Your task to perform on an android device: open app "Indeed Job Search" (install if not already installed) and enter user name: "quixotic@inbox.com" and password: "microphones" Image 0: 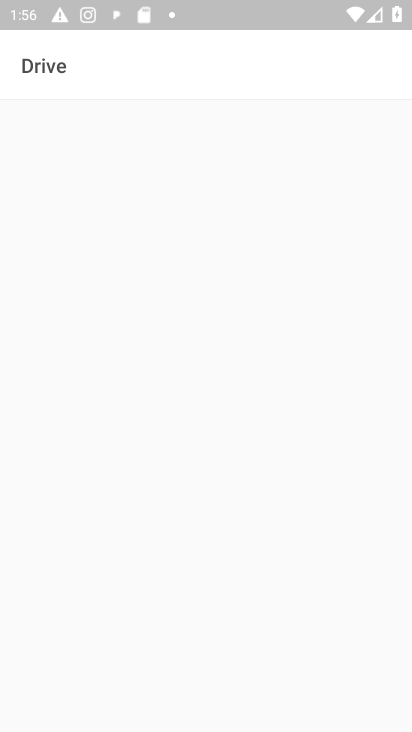
Step 0: press home button
Your task to perform on an android device: open app "Indeed Job Search" (install if not already installed) and enter user name: "quixotic@inbox.com" and password: "microphones" Image 1: 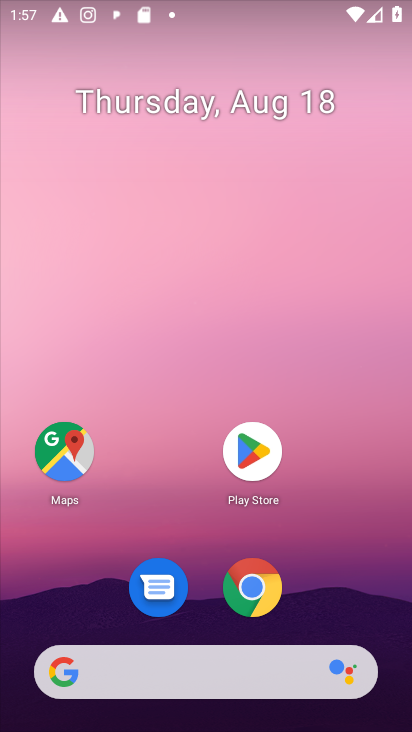
Step 1: click (247, 451)
Your task to perform on an android device: open app "Indeed Job Search" (install if not already installed) and enter user name: "quixotic@inbox.com" and password: "microphones" Image 2: 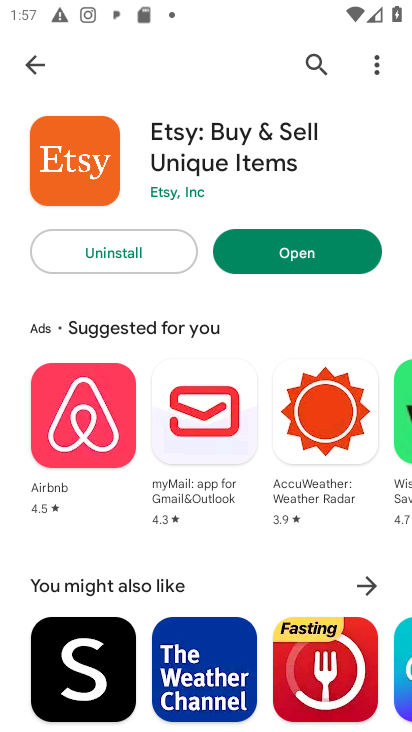
Step 2: click (318, 63)
Your task to perform on an android device: open app "Indeed Job Search" (install if not already installed) and enter user name: "quixotic@inbox.com" and password: "microphones" Image 3: 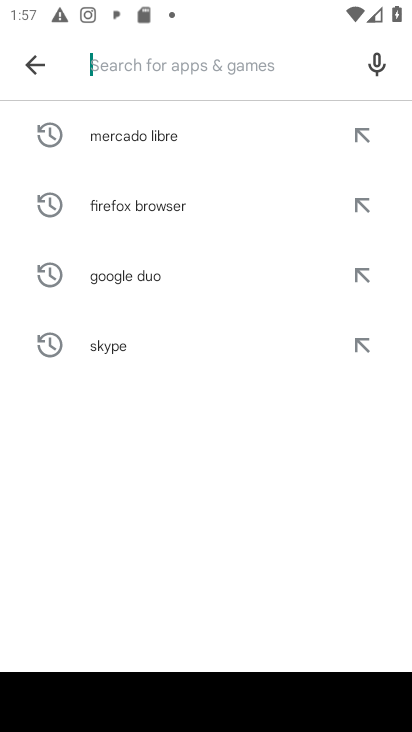
Step 3: type "Indeed Job Search"
Your task to perform on an android device: open app "Indeed Job Search" (install if not already installed) and enter user name: "quixotic@inbox.com" and password: "microphones" Image 4: 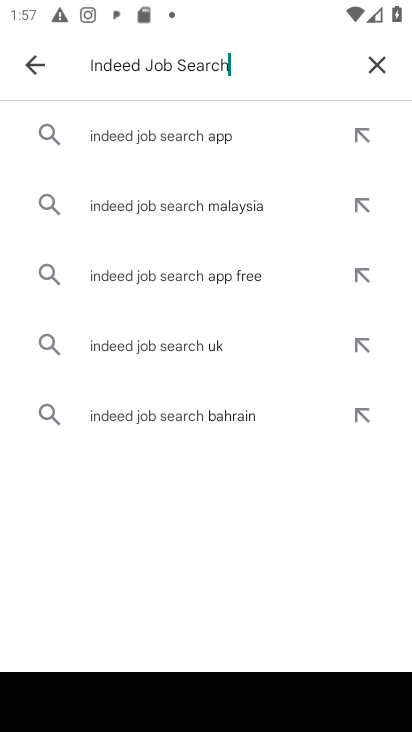
Step 4: click (210, 141)
Your task to perform on an android device: open app "Indeed Job Search" (install if not already installed) and enter user name: "quixotic@inbox.com" and password: "microphones" Image 5: 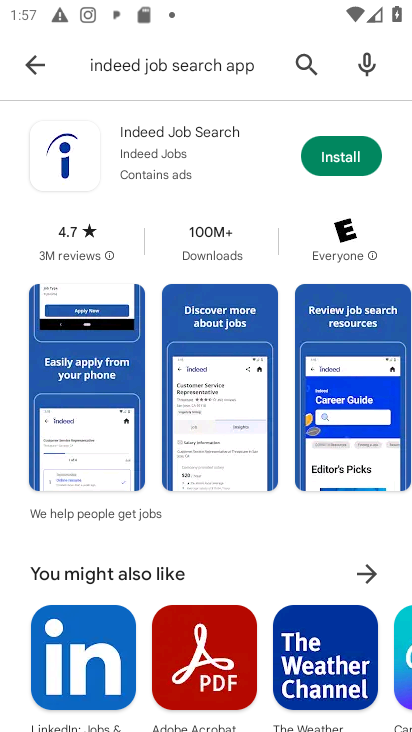
Step 5: click (344, 153)
Your task to perform on an android device: open app "Indeed Job Search" (install if not already installed) and enter user name: "quixotic@inbox.com" and password: "microphones" Image 6: 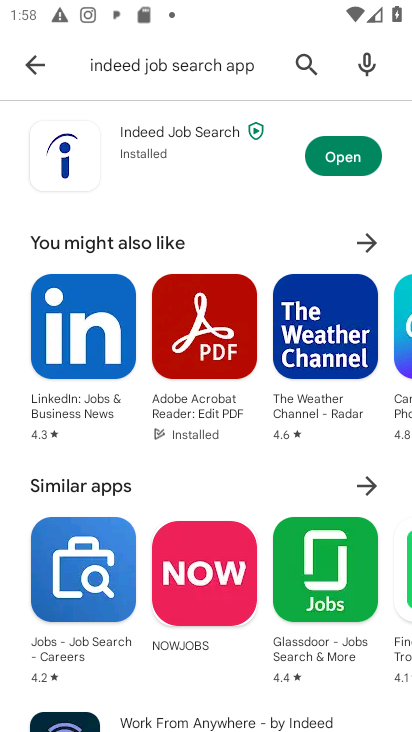
Step 6: click (365, 152)
Your task to perform on an android device: open app "Indeed Job Search" (install if not already installed) and enter user name: "quixotic@inbox.com" and password: "microphones" Image 7: 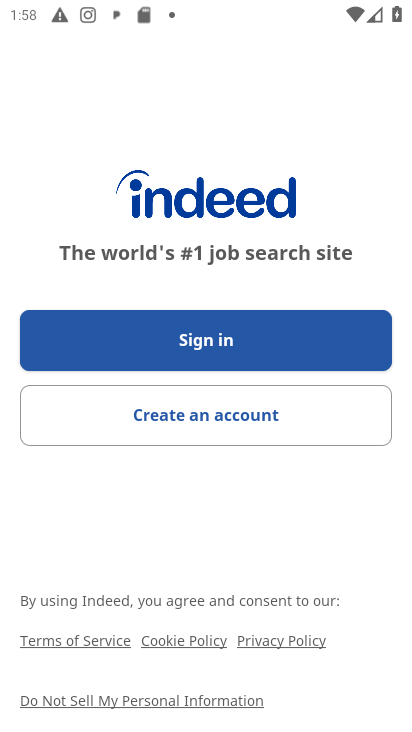
Step 7: click (204, 343)
Your task to perform on an android device: open app "Indeed Job Search" (install if not already installed) and enter user name: "quixotic@inbox.com" and password: "microphones" Image 8: 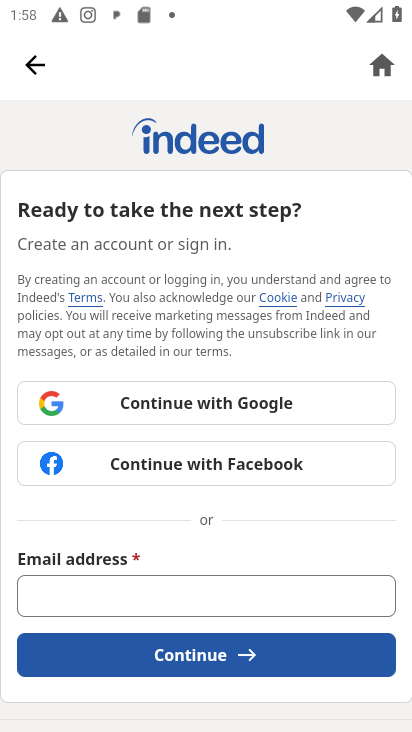
Step 8: click (109, 596)
Your task to perform on an android device: open app "Indeed Job Search" (install if not already installed) and enter user name: "quixotic@inbox.com" and password: "microphones" Image 9: 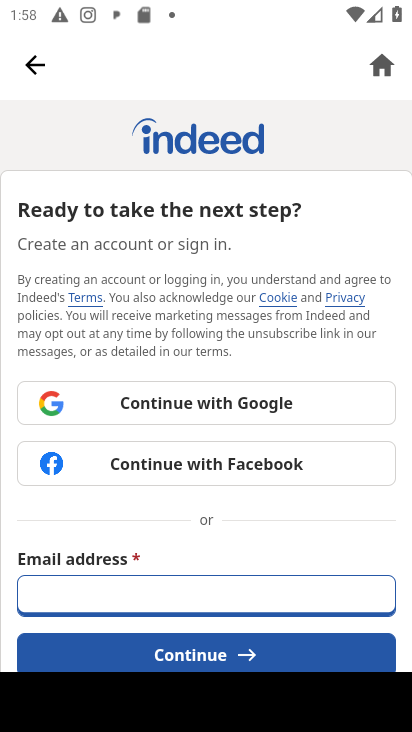
Step 9: click (106, 588)
Your task to perform on an android device: open app "Indeed Job Search" (install if not already installed) and enter user name: "quixotic@inbox.com" and password: "microphones" Image 10: 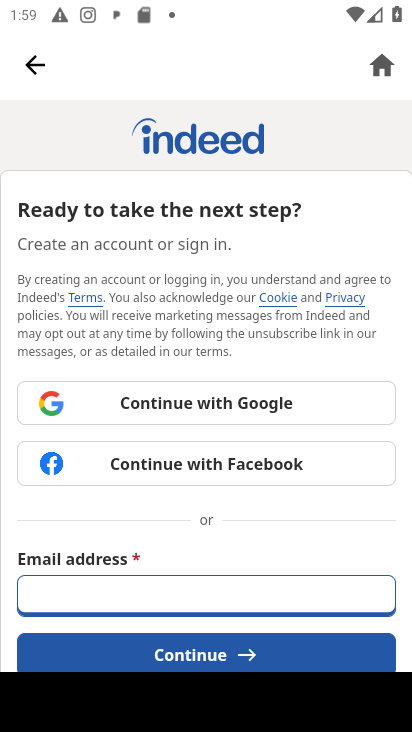
Step 10: type "quixotic@inbox.com"
Your task to perform on an android device: open app "Indeed Job Search" (install if not already installed) and enter user name: "quixotic@inbox.com" and password: "microphones" Image 11: 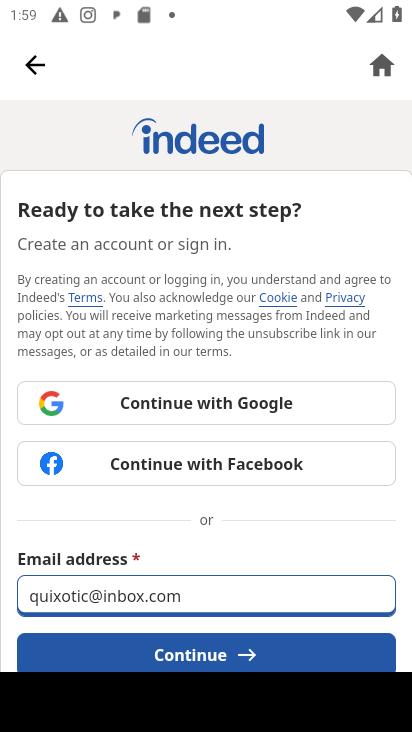
Step 11: drag from (294, 557) to (391, 214)
Your task to perform on an android device: open app "Indeed Job Search" (install if not already installed) and enter user name: "quixotic@inbox.com" and password: "microphones" Image 12: 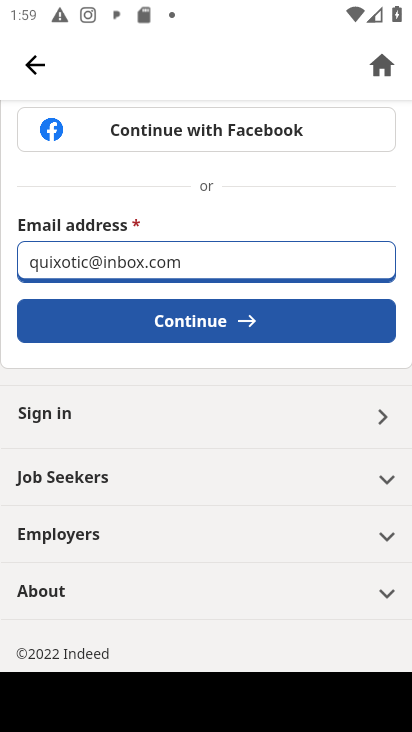
Step 12: click (244, 321)
Your task to perform on an android device: open app "Indeed Job Search" (install if not already installed) and enter user name: "quixotic@inbox.com" and password: "microphones" Image 13: 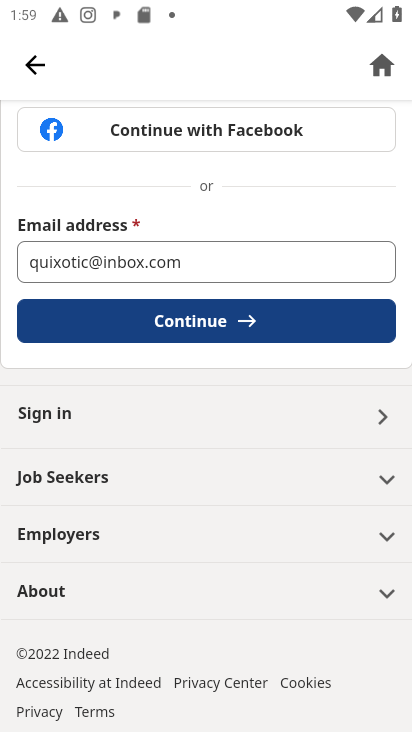
Step 13: drag from (353, 207) to (382, 390)
Your task to perform on an android device: open app "Indeed Job Search" (install if not already installed) and enter user name: "quixotic@inbox.com" and password: "microphones" Image 14: 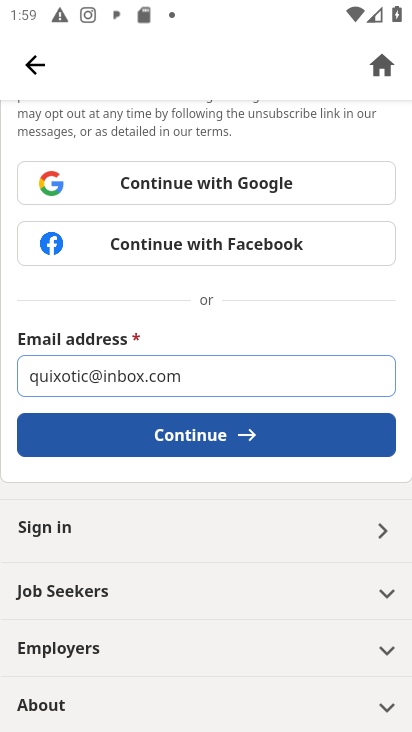
Step 14: click (250, 433)
Your task to perform on an android device: open app "Indeed Job Search" (install if not already installed) and enter user name: "quixotic@inbox.com" and password: "microphones" Image 15: 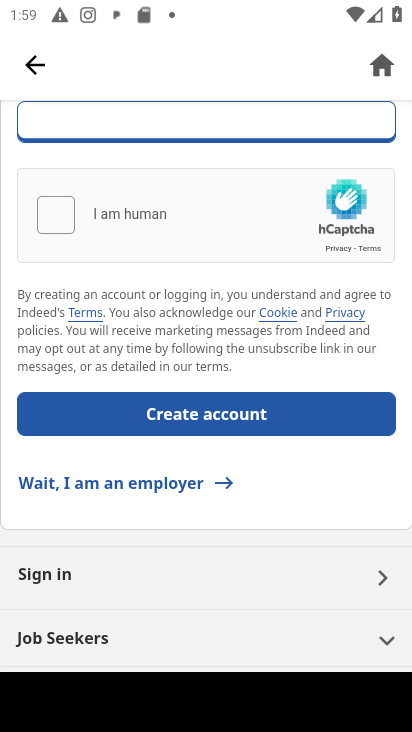
Step 15: drag from (234, 274) to (262, 528)
Your task to perform on an android device: open app "Indeed Job Search" (install if not already installed) and enter user name: "quixotic@inbox.com" and password: "microphones" Image 16: 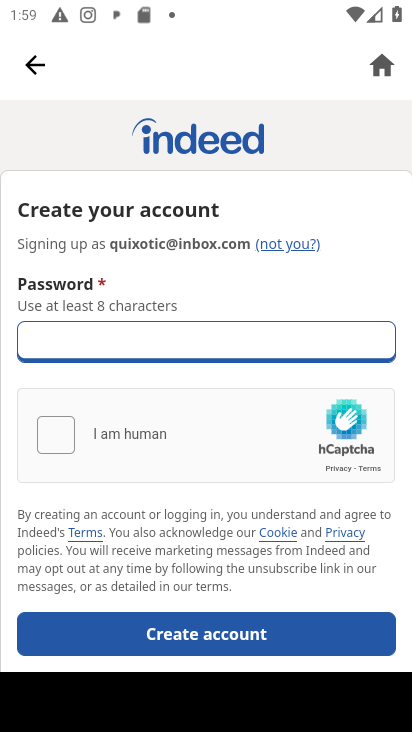
Step 16: type "microphones"
Your task to perform on an android device: open app "Indeed Job Search" (install if not already installed) and enter user name: "quixotic@inbox.com" and password: "microphones" Image 17: 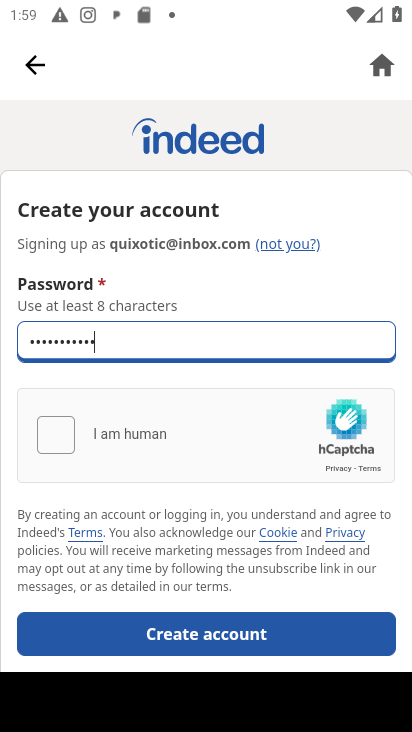
Step 17: task complete